Your task to perform on an android device: Open Wikipedia Image 0: 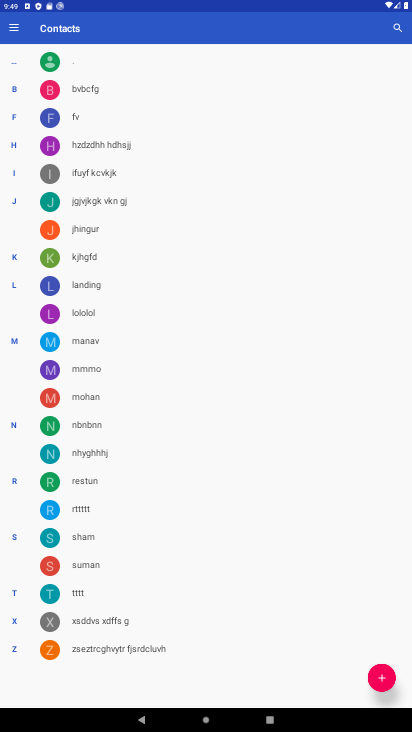
Step 0: press home button
Your task to perform on an android device: Open Wikipedia Image 1: 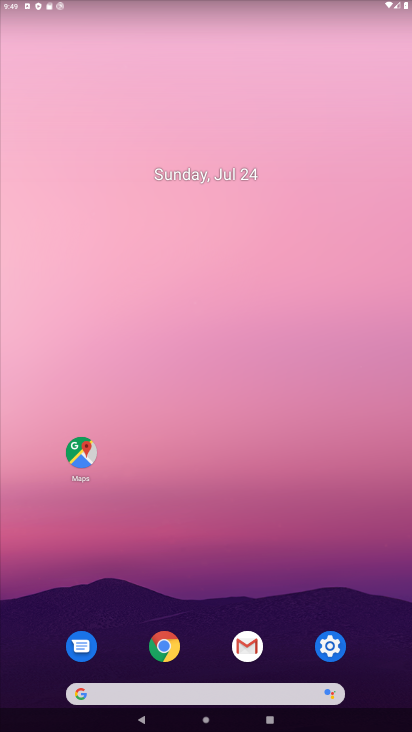
Step 1: click (153, 645)
Your task to perform on an android device: Open Wikipedia Image 2: 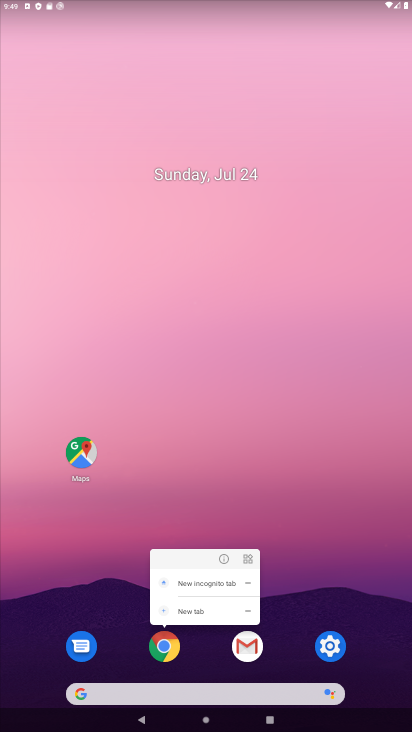
Step 2: click (157, 649)
Your task to perform on an android device: Open Wikipedia Image 3: 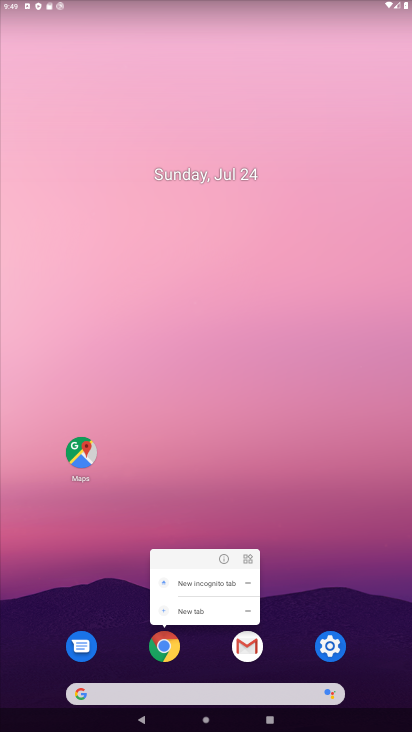
Step 3: click (163, 656)
Your task to perform on an android device: Open Wikipedia Image 4: 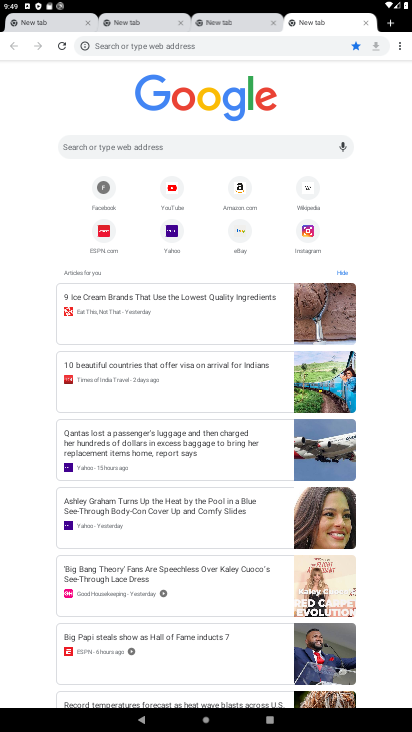
Step 4: click (317, 192)
Your task to perform on an android device: Open Wikipedia Image 5: 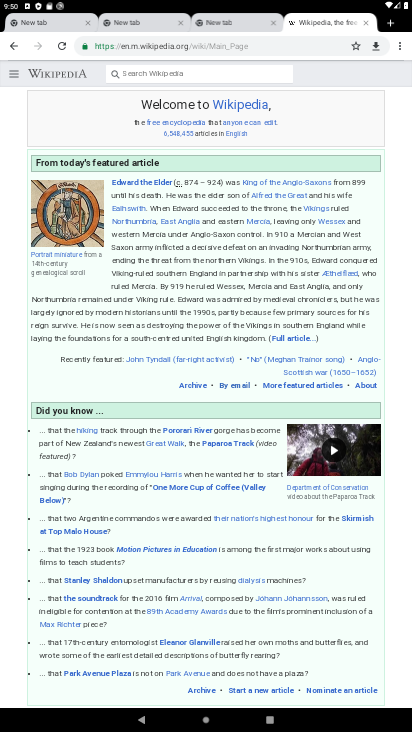
Step 5: task complete